Your task to perform on an android device: change the clock display to digital Image 0: 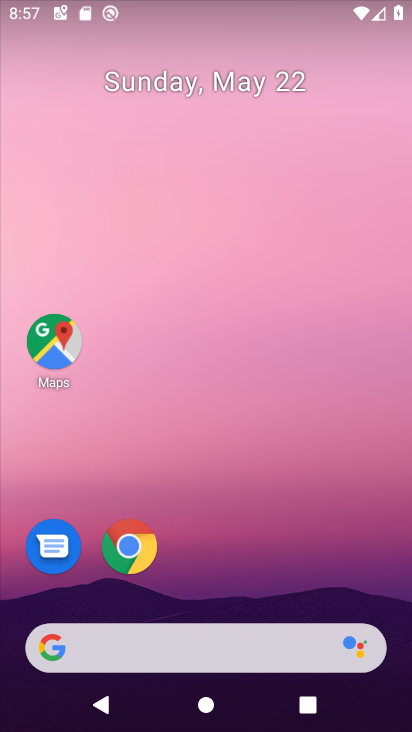
Step 0: drag from (378, 578) to (339, 144)
Your task to perform on an android device: change the clock display to digital Image 1: 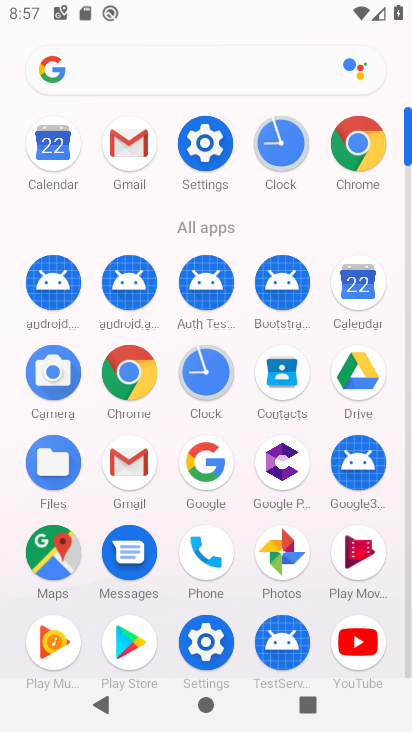
Step 1: click (210, 381)
Your task to perform on an android device: change the clock display to digital Image 2: 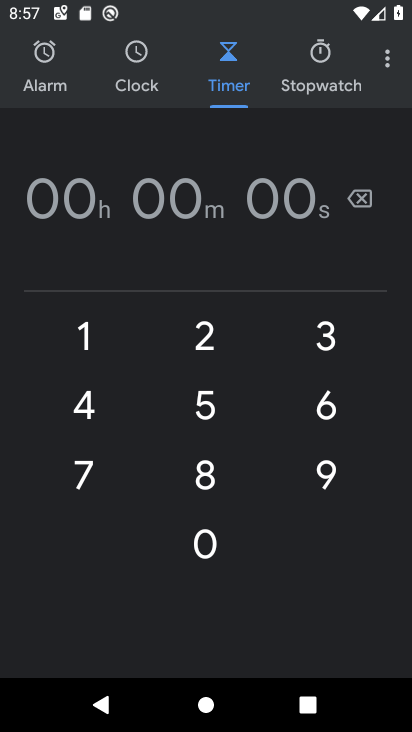
Step 2: click (384, 67)
Your task to perform on an android device: change the clock display to digital Image 3: 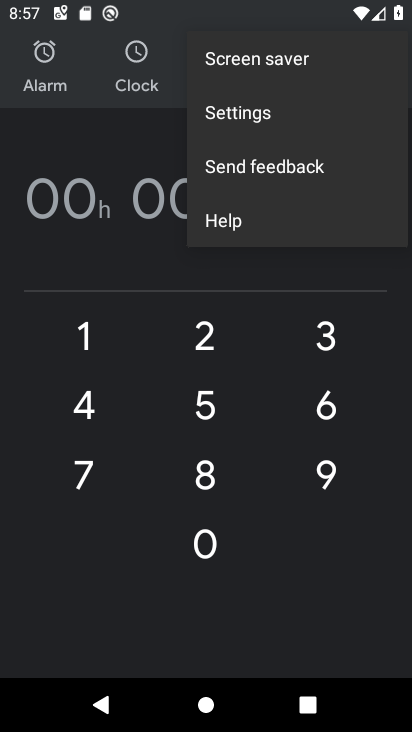
Step 3: click (388, 58)
Your task to perform on an android device: change the clock display to digital Image 4: 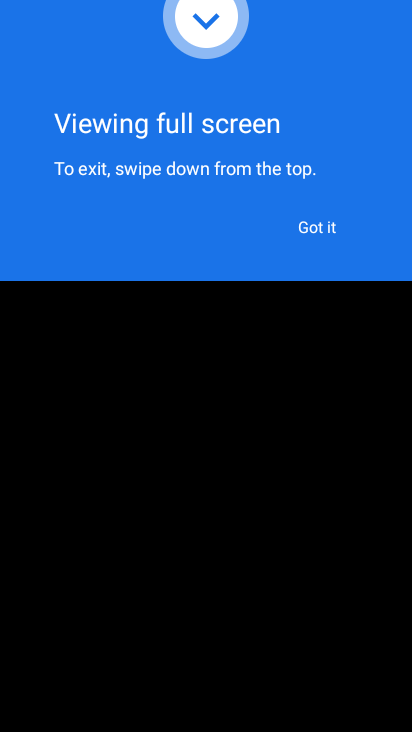
Step 4: click (243, 116)
Your task to perform on an android device: change the clock display to digital Image 5: 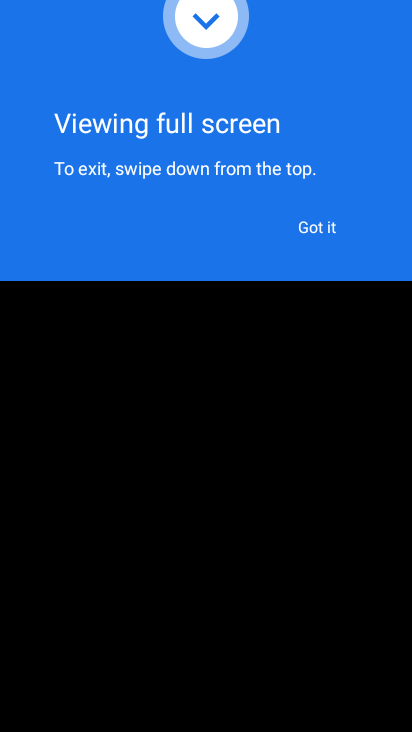
Step 5: click (306, 236)
Your task to perform on an android device: change the clock display to digital Image 6: 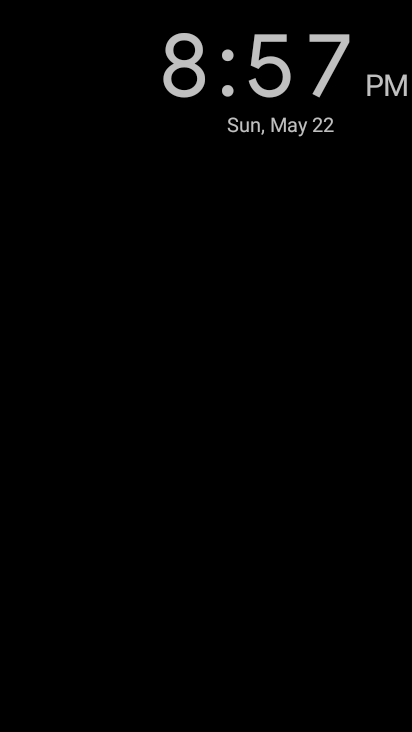
Step 6: click (300, 252)
Your task to perform on an android device: change the clock display to digital Image 7: 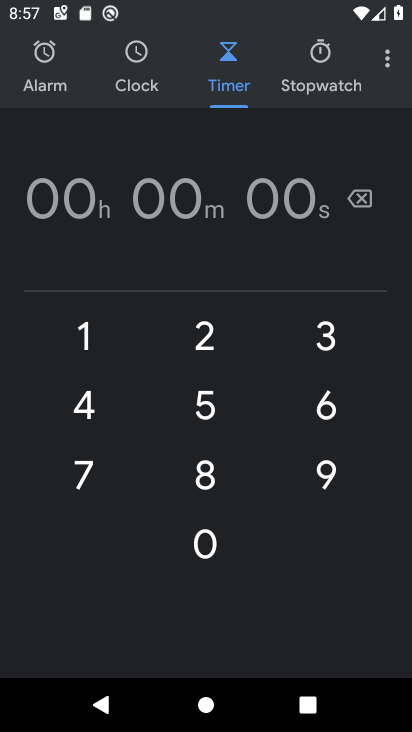
Step 7: click (391, 67)
Your task to perform on an android device: change the clock display to digital Image 8: 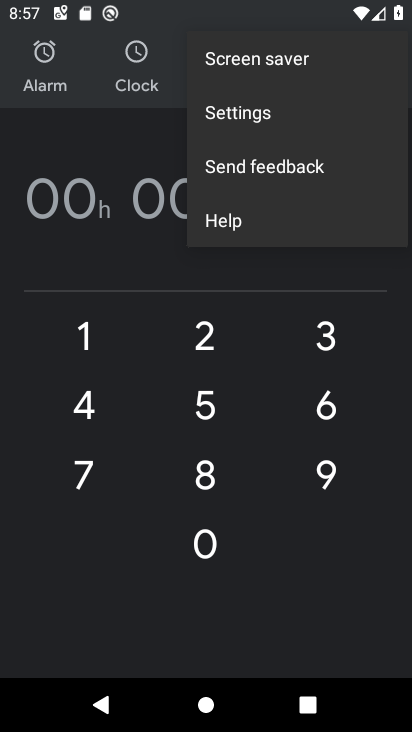
Step 8: click (287, 123)
Your task to perform on an android device: change the clock display to digital Image 9: 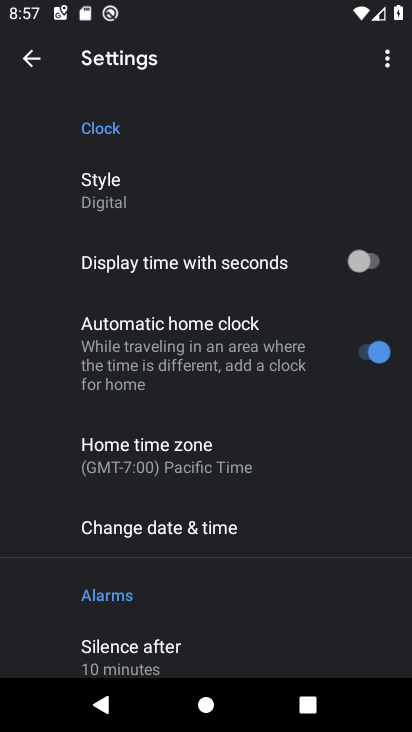
Step 9: task complete